Your task to perform on an android device: Go to network settings Image 0: 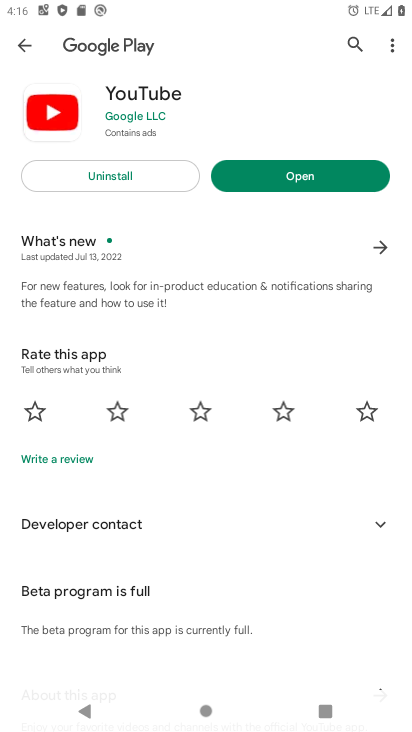
Step 0: press home button
Your task to perform on an android device: Go to network settings Image 1: 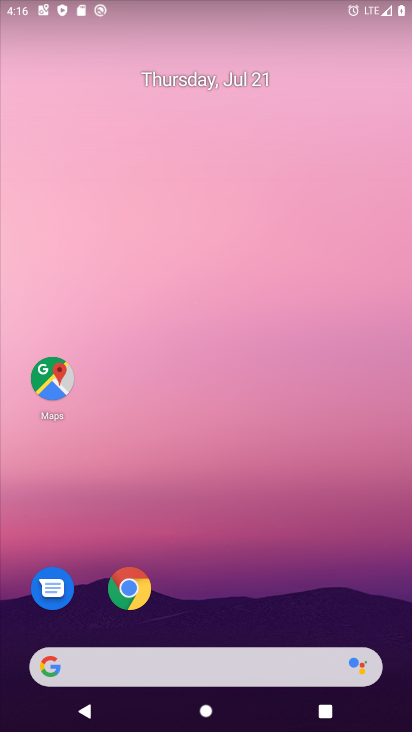
Step 1: drag from (218, 581) to (205, 130)
Your task to perform on an android device: Go to network settings Image 2: 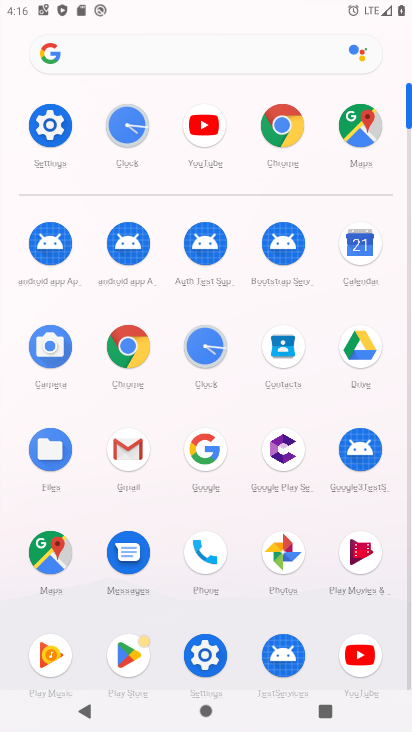
Step 2: click (213, 649)
Your task to perform on an android device: Go to network settings Image 3: 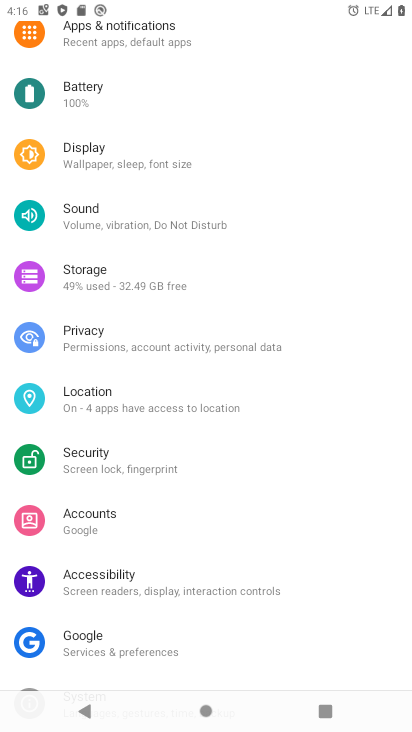
Step 3: drag from (181, 115) to (131, 551)
Your task to perform on an android device: Go to network settings Image 4: 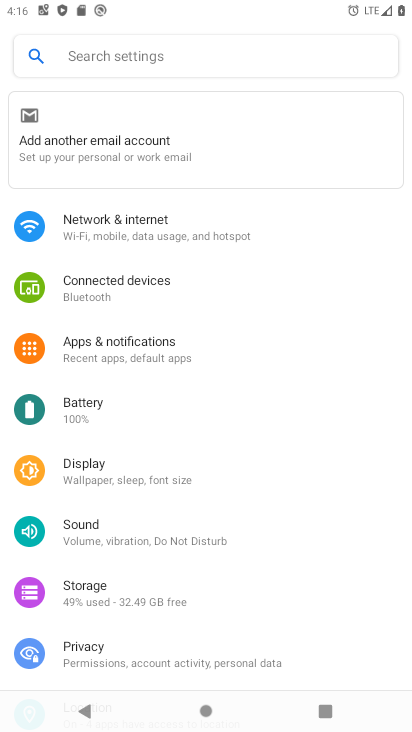
Step 4: click (135, 225)
Your task to perform on an android device: Go to network settings Image 5: 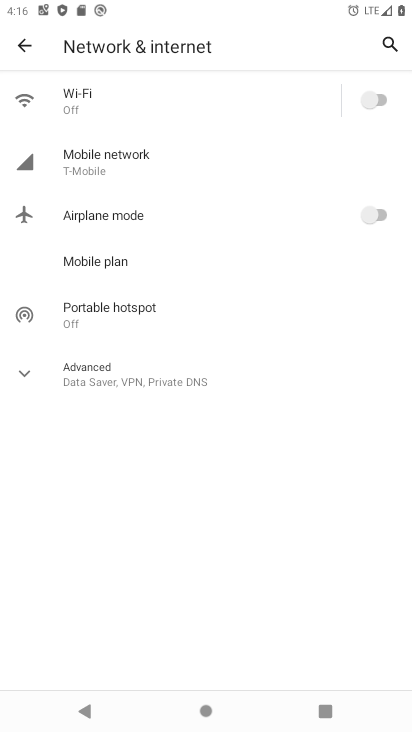
Step 5: task complete